Your task to perform on an android device: change the clock display to show seconds Image 0: 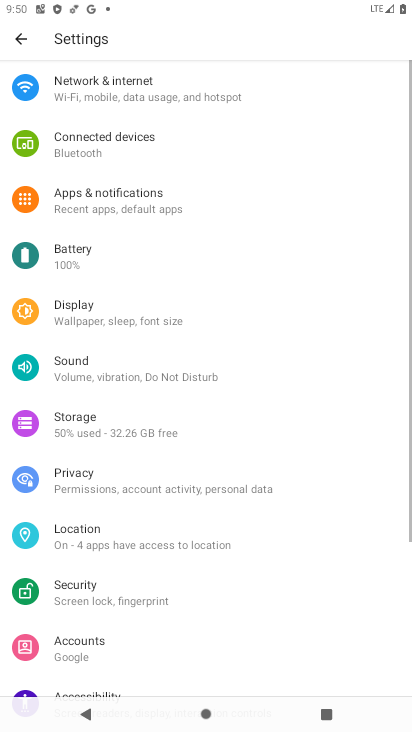
Step 0: press home button
Your task to perform on an android device: change the clock display to show seconds Image 1: 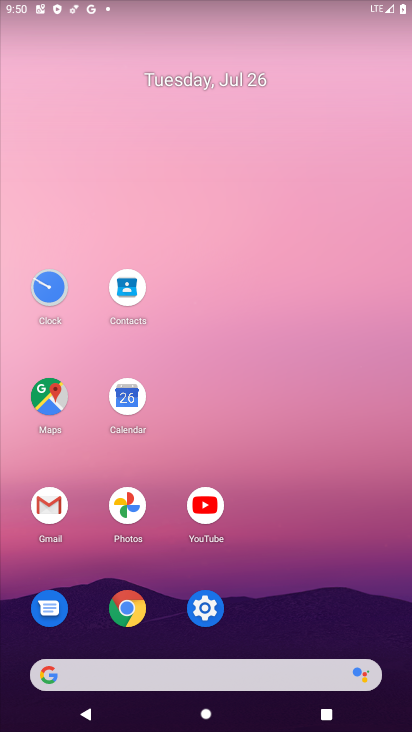
Step 1: click (54, 286)
Your task to perform on an android device: change the clock display to show seconds Image 2: 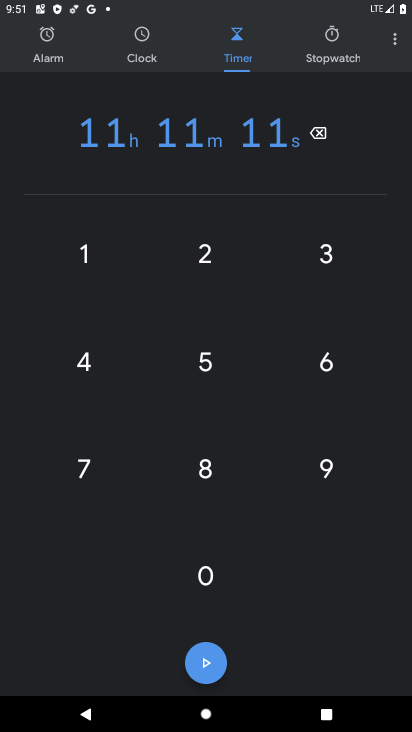
Step 2: click (392, 43)
Your task to perform on an android device: change the clock display to show seconds Image 3: 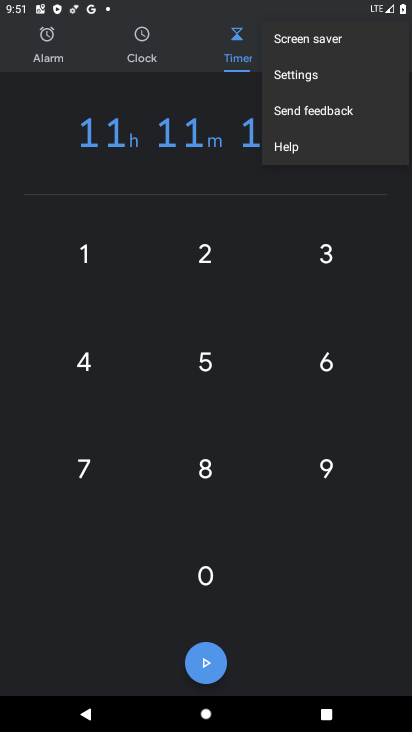
Step 3: click (293, 69)
Your task to perform on an android device: change the clock display to show seconds Image 4: 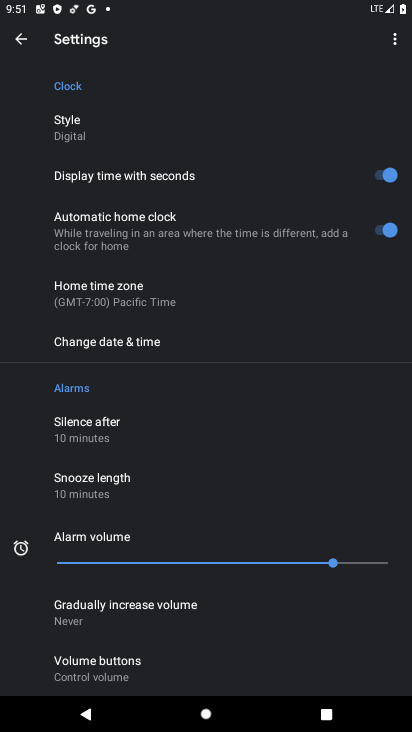
Step 4: task complete